Your task to perform on an android device: toggle notification dots Image 0: 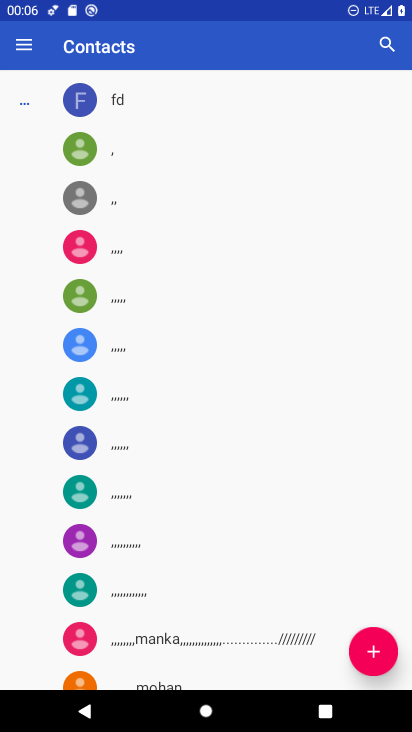
Step 0: press home button
Your task to perform on an android device: toggle notification dots Image 1: 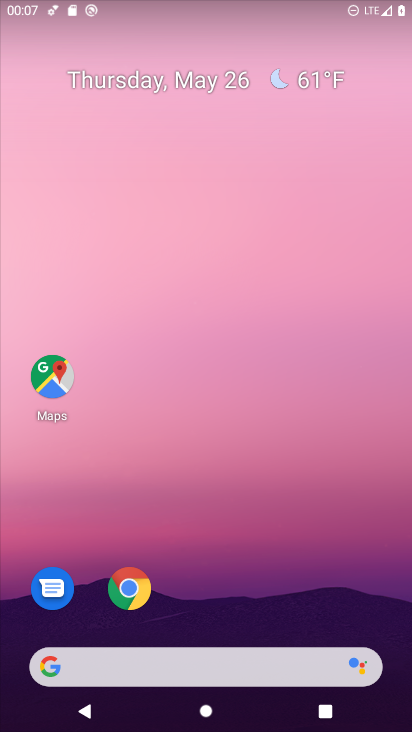
Step 1: drag from (209, 550) to (126, 109)
Your task to perform on an android device: toggle notification dots Image 2: 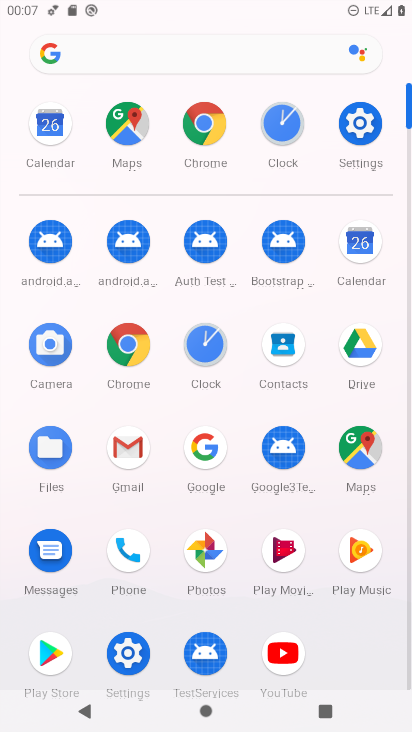
Step 2: click (357, 108)
Your task to perform on an android device: toggle notification dots Image 3: 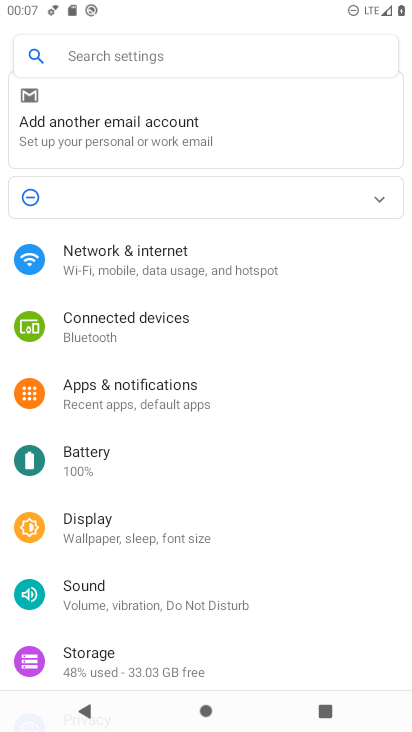
Step 3: click (151, 395)
Your task to perform on an android device: toggle notification dots Image 4: 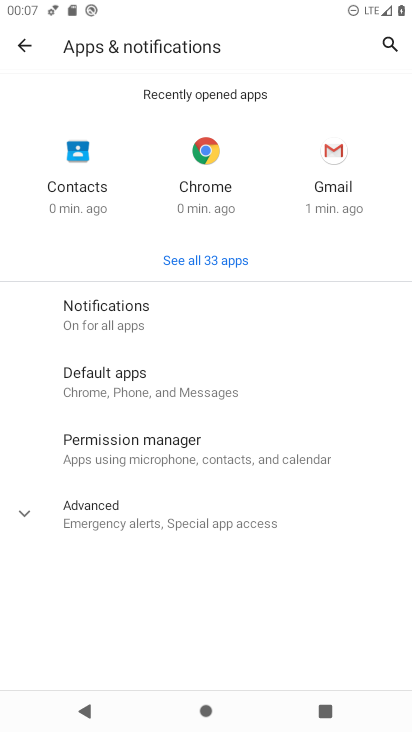
Step 4: click (94, 307)
Your task to perform on an android device: toggle notification dots Image 5: 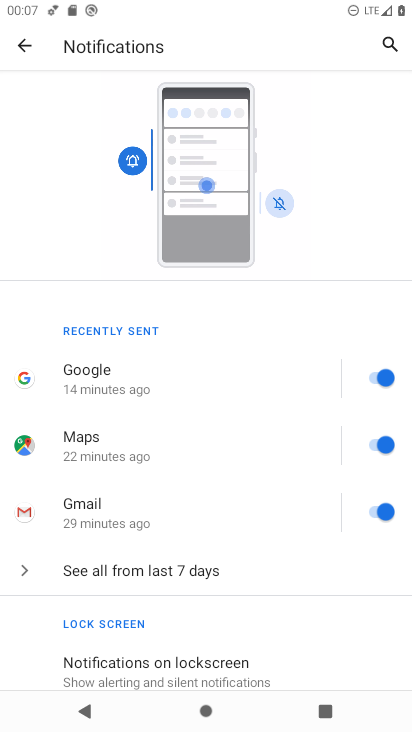
Step 5: drag from (179, 618) to (143, 318)
Your task to perform on an android device: toggle notification dots Image 6: 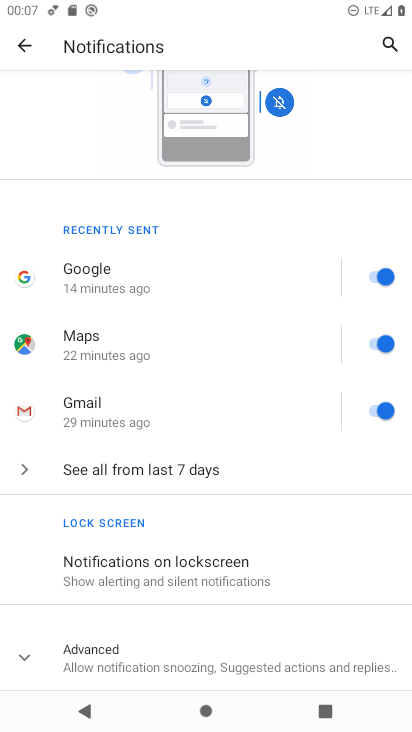
Step 6: click (42, 661)
Your task to perform on an android device: toggle notification dots Image 7: 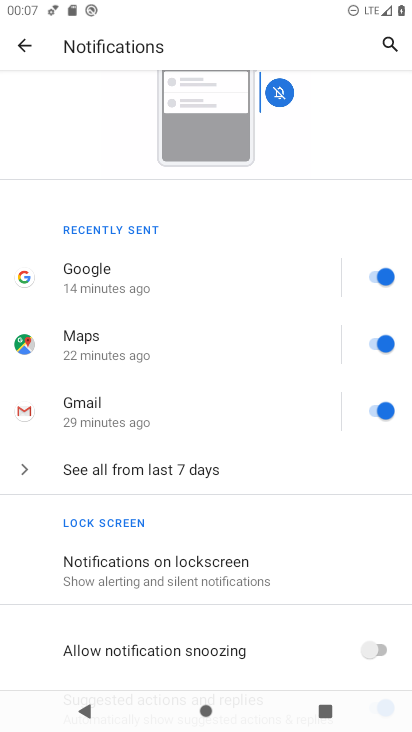
Step 7: drag from (158, 626) to (115, 311)
Your task to perform on an android device: toggle notification dots Image 8: 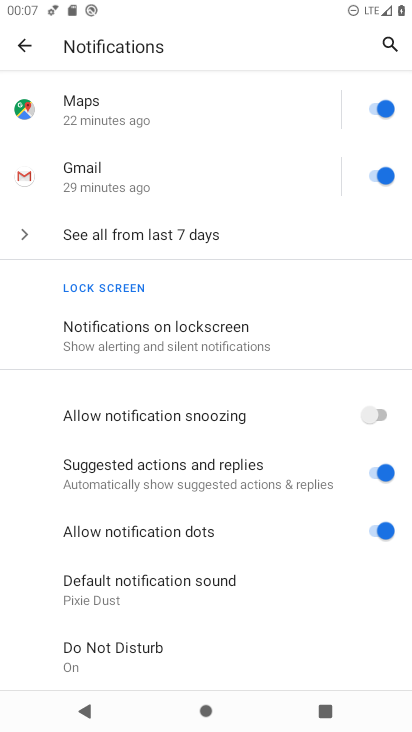
Step 8: click (380, 527)
Your task to perform on an android device: toggle notification dots Image 9: 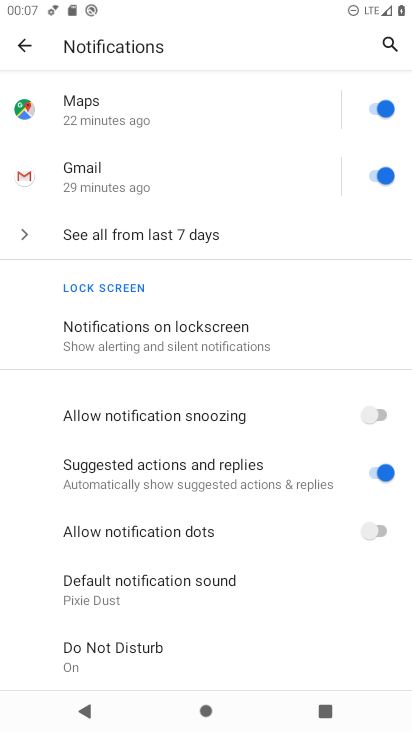
Step 9: task complete